Your task to perform on an android device: Show me popular videos on Youtube Image 0: 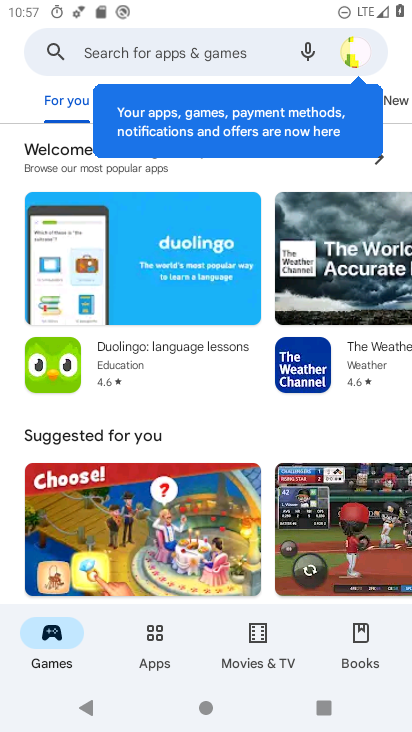
Step 0: press back button
Your task to perform on an android device: Show me popular videos on Youtube Image 1: 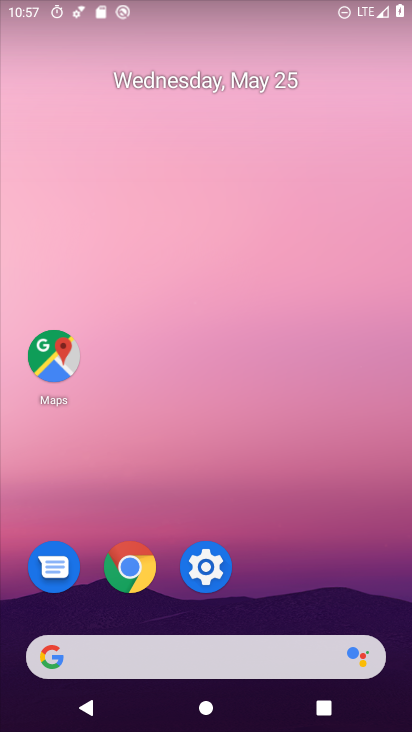
Step 1: drag from (278, 651) to (196, 15)
Your task to perform on an android device: Show me popular videos on Youtube Image 2: 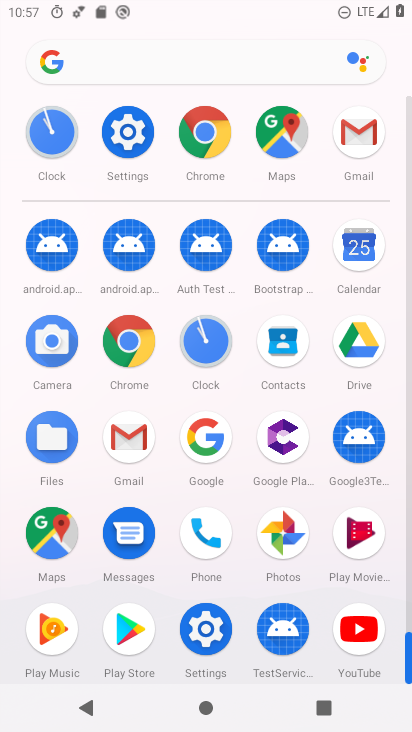
Step 2: drag from (290, 552) to (215, 147)
Your task to perform on an android device: Show me popular videos on Youtube Image 3: 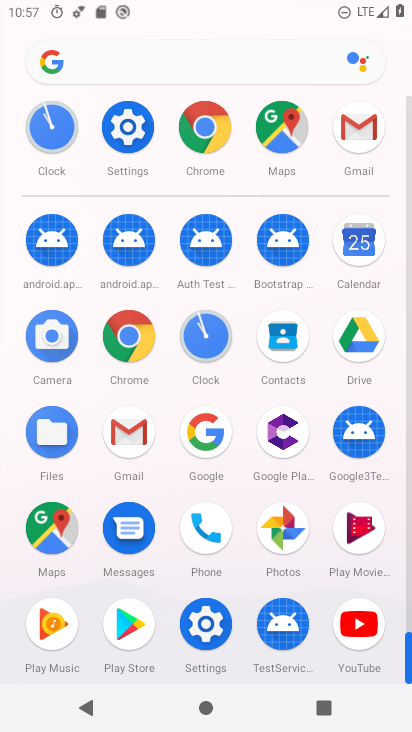
Step 3: click (350, 615)
Your task to perform on an android device: Show me popular videos on Youtube Image 4: 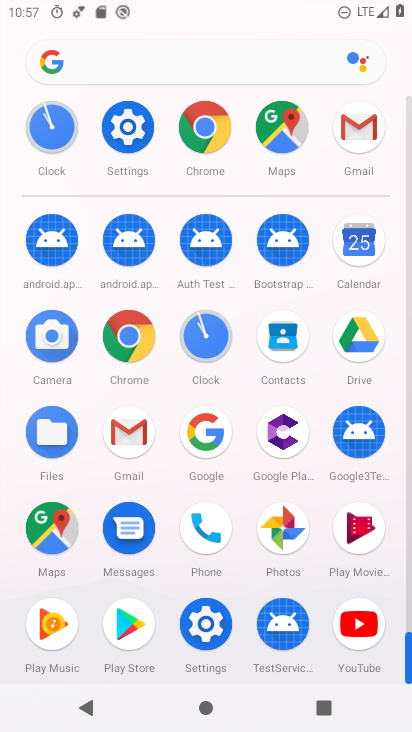
Step 4: click (350, 615)
Your task to perform on an android device: Show me popular videos on Youtube Image 5: 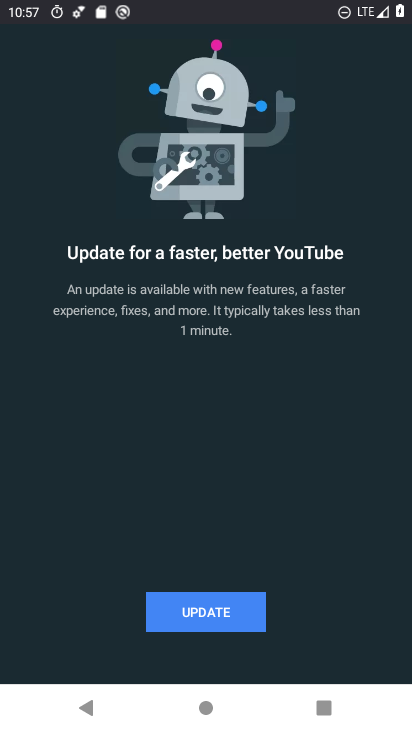
Step 5: click (207, 608)
Your task to perform on an android device: Show me popular videos on Youtube Image 6: 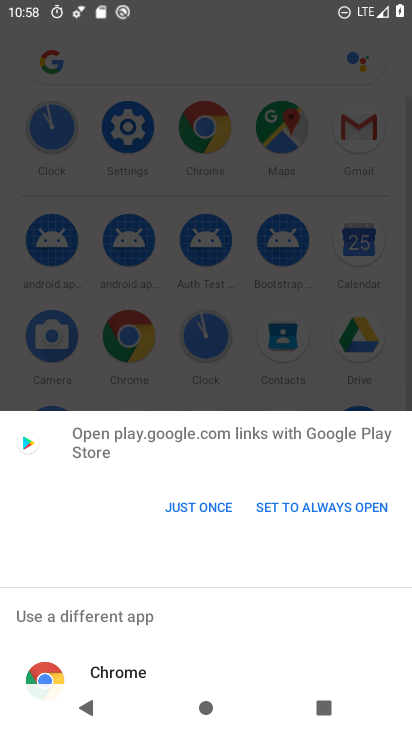
Step 6: drag from (111, 527) to (67, 235)
Your task to perform on an android device: Show me popular videos on Youtube Image 7: 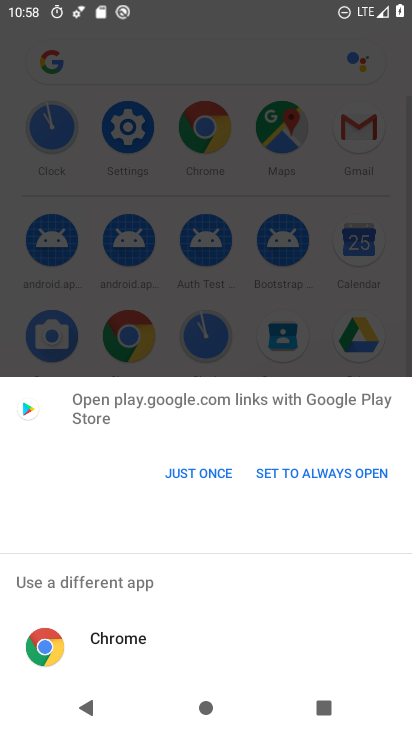
Step 7: drag from (151, 543) to (156, 140)
Your task to perform on an android device: Show me popular videos on Youtube Image 8: 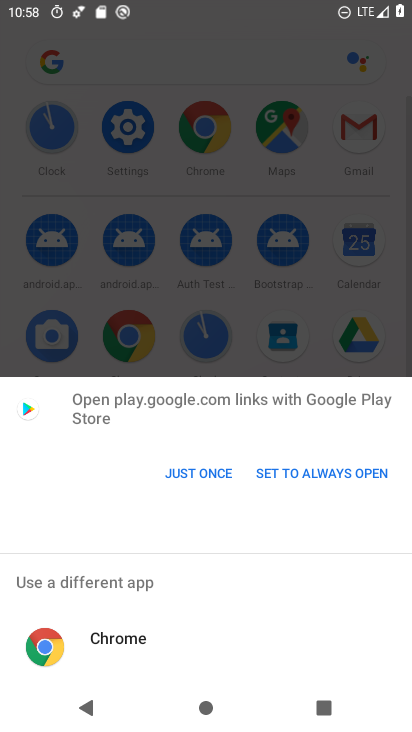
Step 8: drag from (234, 585) to (235, 113)
Your task to perform on an android device: Show me popular videos on Youtube Image 9: 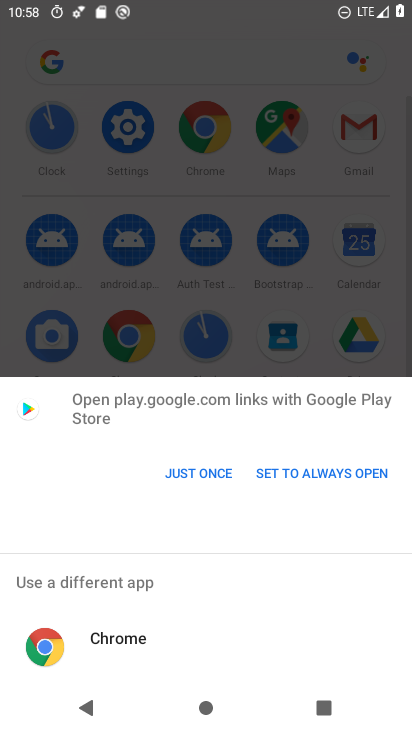
Step 9: drag from (230, 500) to (190, 70)
Your task to perform on an android device: Show me popular videos on Youtube Image 10: 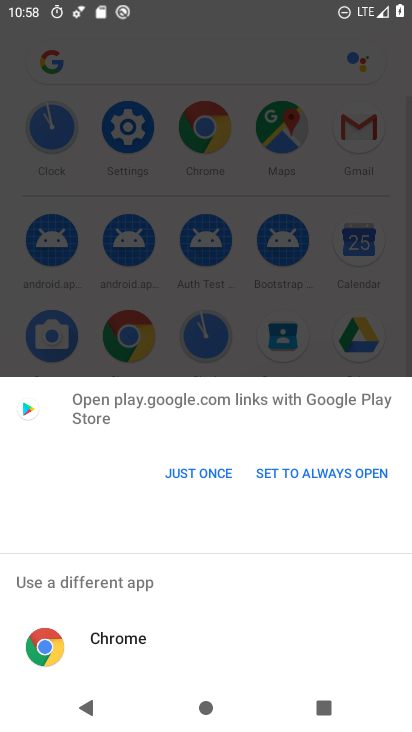
Step 10: drag from (217, 384) to (241, 131)
Your task to perform on an android device: Show me popular videos on Youtube Image 11: 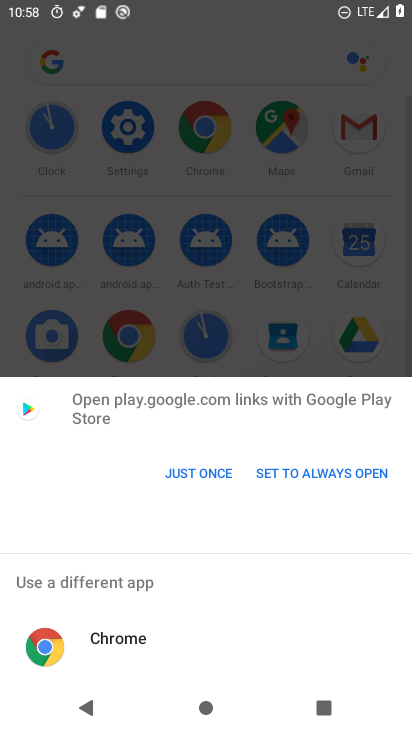
Step 11: drag from (207, 608) to (408, 174)
Your task to perform on an android device: Show me popular videos on Youtube Image 12: 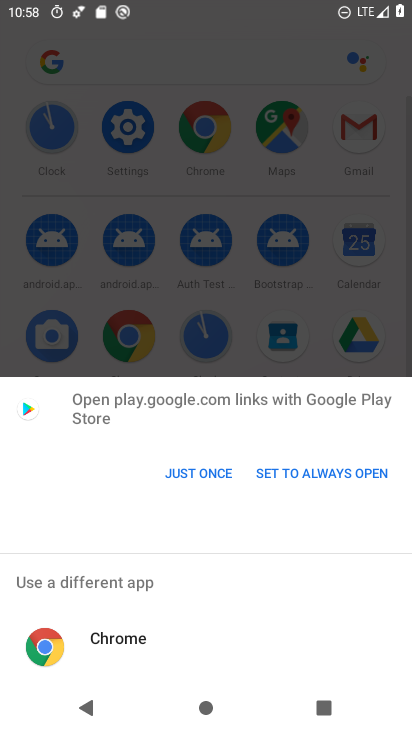
Step 12: press back button
Your task to perform on an android device: Show me popular videos on Youtube Image 13: 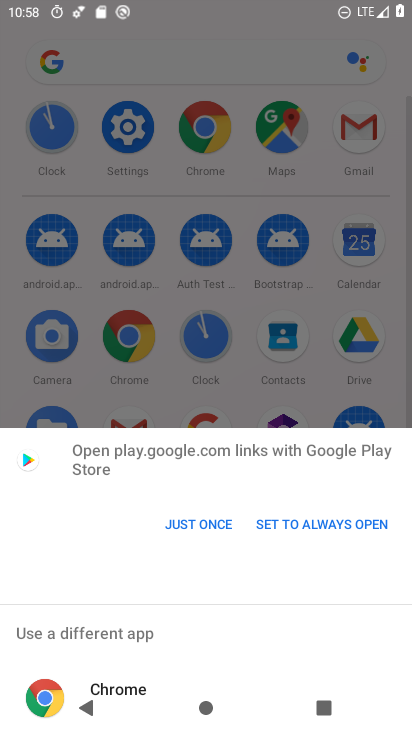
Step 13: press back button
Your task to perform on an android device: Show me popular videos on Youtube Image 14: 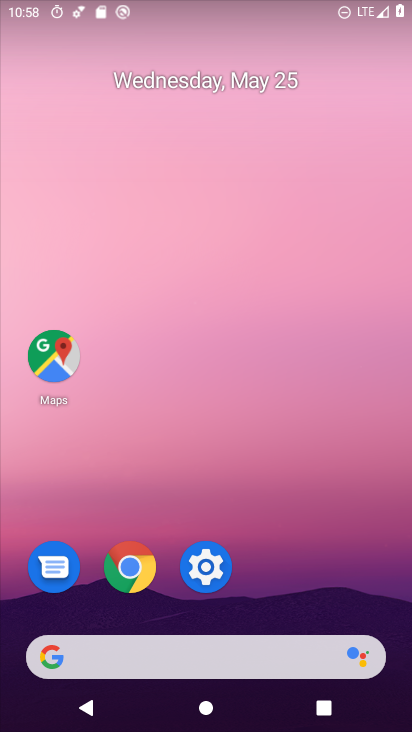
Step 14: click (214, 117)
Your task to perform on an android device: Show me popular videos on Youtube Image 15: 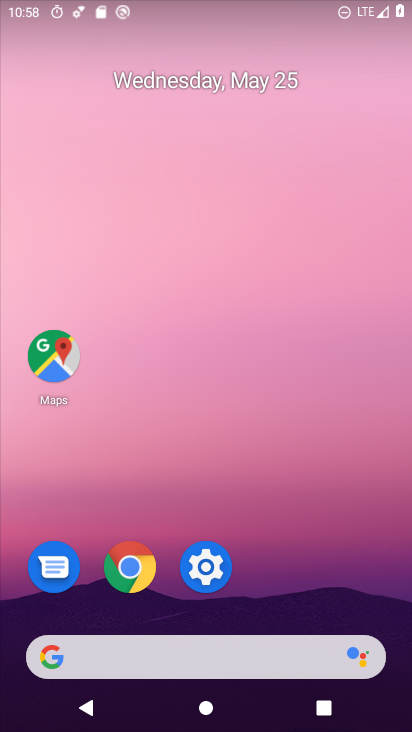
Step 15: drag from (249, 547) to (136, 31)
Your task to perform on an android device: Show me popular videos on Youtube Image 16: 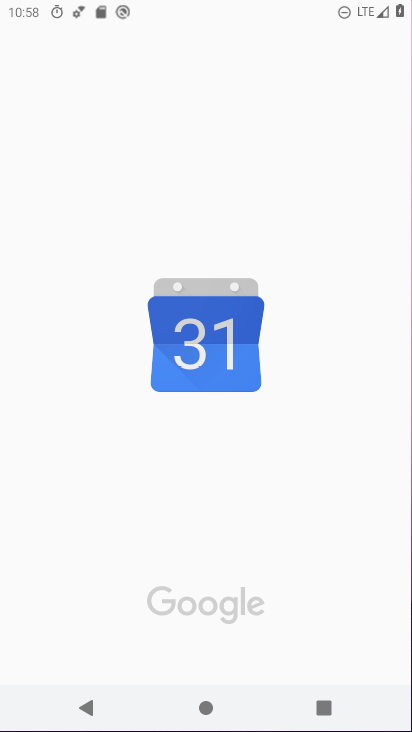
Step 16: drag from (237, 514) to (100, 27)
Your task to perform on an android device: Show me popular videos on Youtube Image 17: 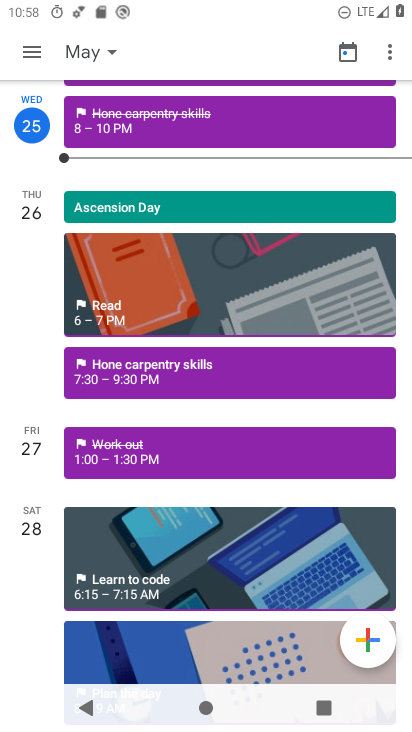
Step 17: drag from (195, 493) to (127, 39)
Your task to perform on an android device: Show me popular videos on Youtube Image 18: 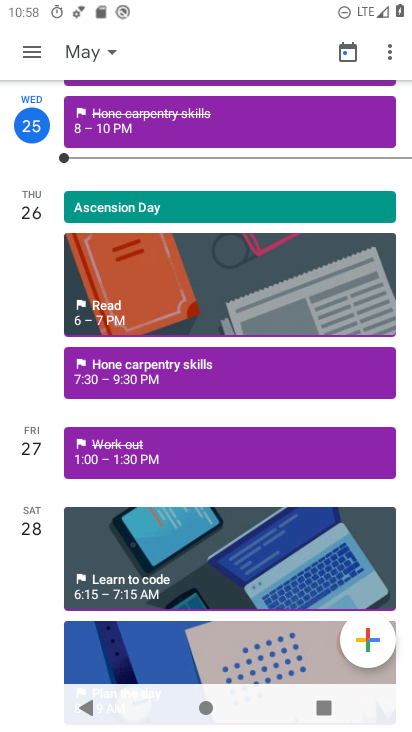
Step 18: drag from (279, 636) to (120, 16)
Your task to perform on an android device: Show me popular videos on Youtube Image 19: 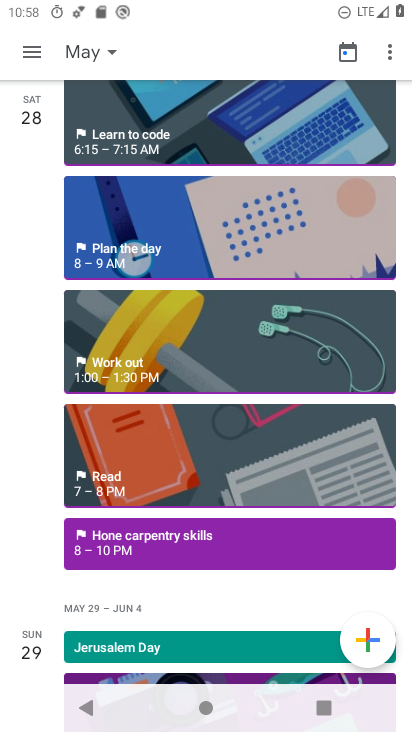
Step 19: press back button
Your task to perform on an android device: Show me popular videos on Youtube Image 20: 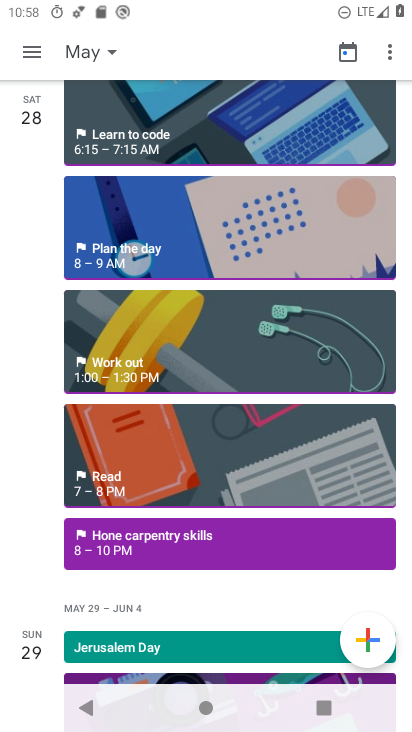
Step 20: press back button
Your task to perform on an android device: Show me popular videos on Youtube Image 21: 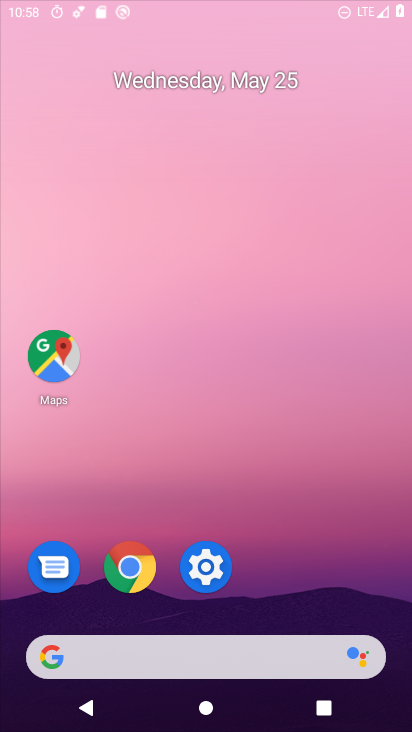
Step 21: press back button
Your task to perform on an android device: Show me popular videos on Youtube Image 22: 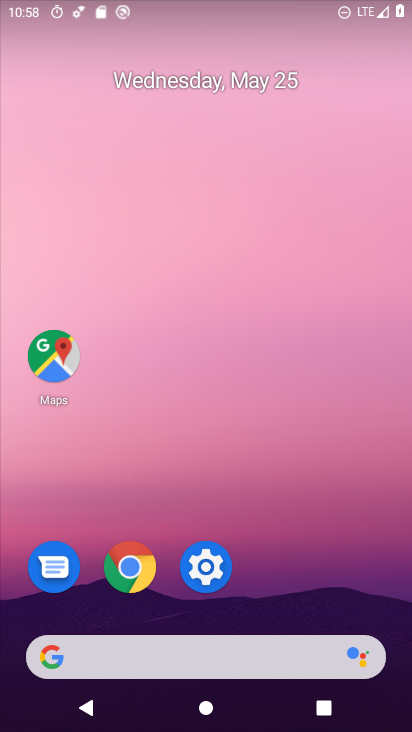
Step 22: drag from (216, 586) to (102, 104)
Your task to perform on an android device: Show me popular videos on Youtube Image 23: 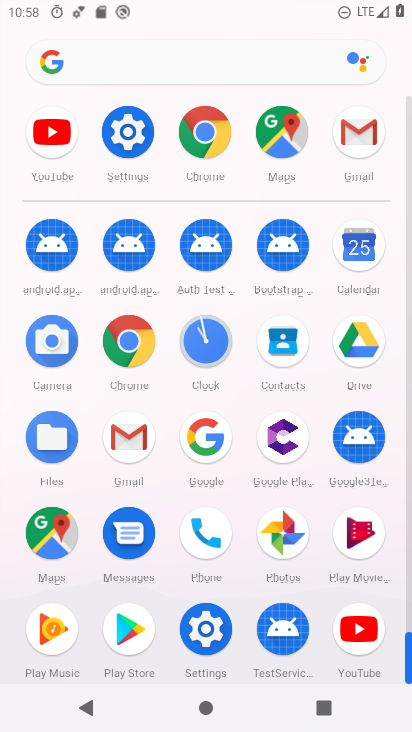
Step 23: click (354, 620)
Your task to perform on an android device: Show me popular videos on Youtube Image 24: 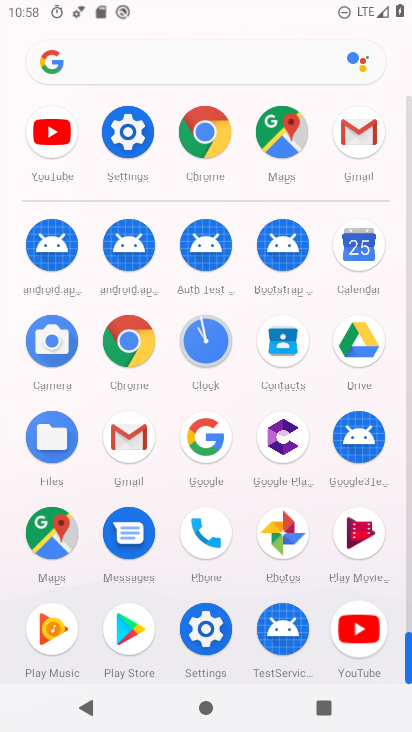
Step 24: click (355, 620)
Your task to perform on an android device: Show me popular videos on Youtube Image 25: 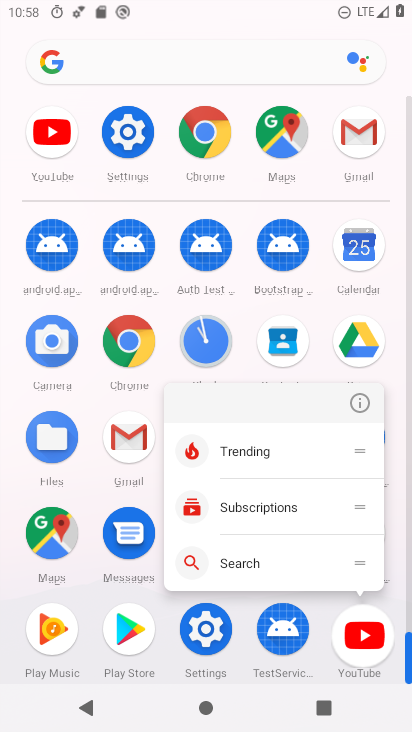
Step 25: click (358, 629)
Your task to perform on an android device: Show me popular videos on Youtube Image 26: 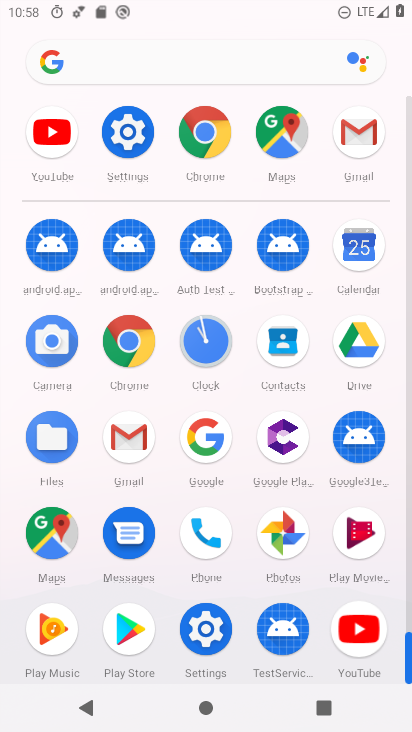
Step 26: click (358, 629)
Your task to perform on an android device: Show me popular videos on Youtube Image 27: 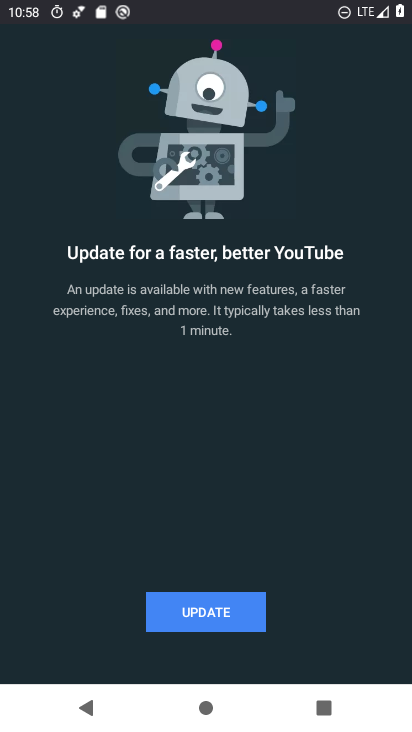
Step 27: click (358, 629)
Your task to perform on an android device: Show me popular videos on Youtube Image 28: 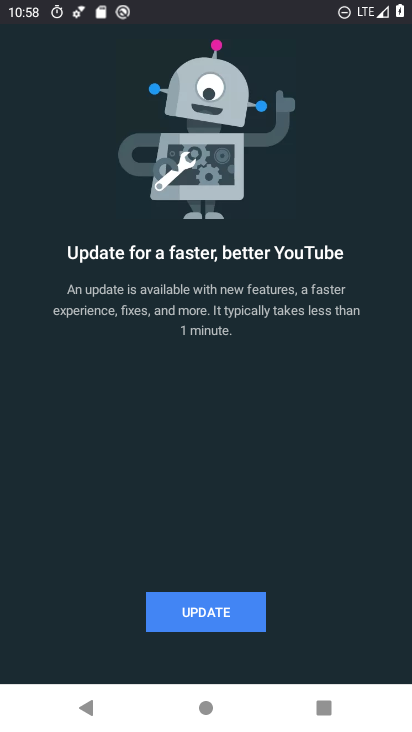
Step 28: click (215, 614)
Your task to perform on an android device: Show me popular videos on Youtube Image 29: 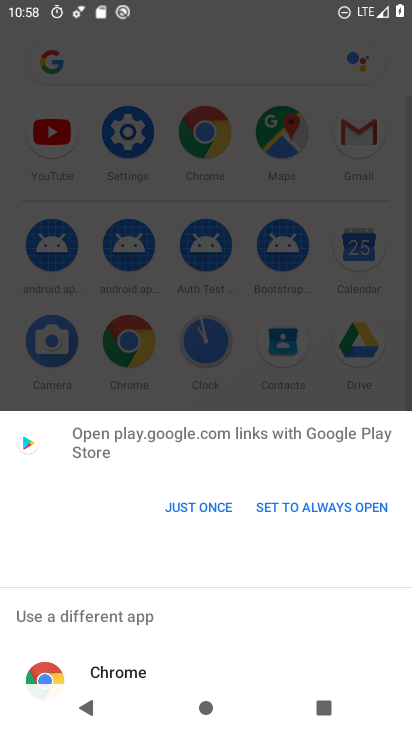
Step 29: drag from (141, 607) to (61, 309)
Your task to perform on an android device: Show me popular videos on Youtube Image 30: 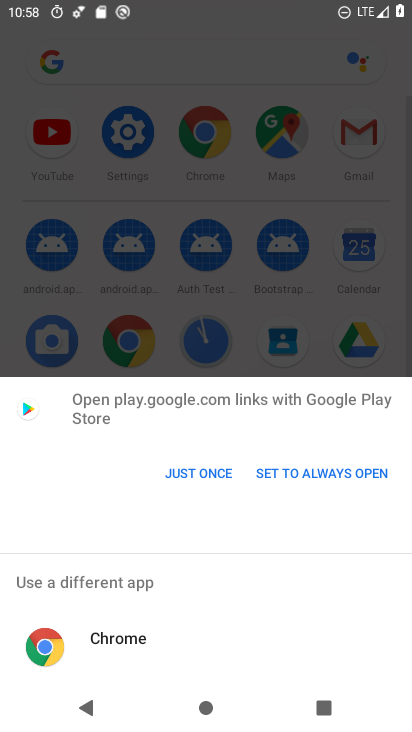
Step 30: drag from (207, 596) to (173, 380)
Your task to perform on an android device: Show me popular videos on Youtube Image 31: 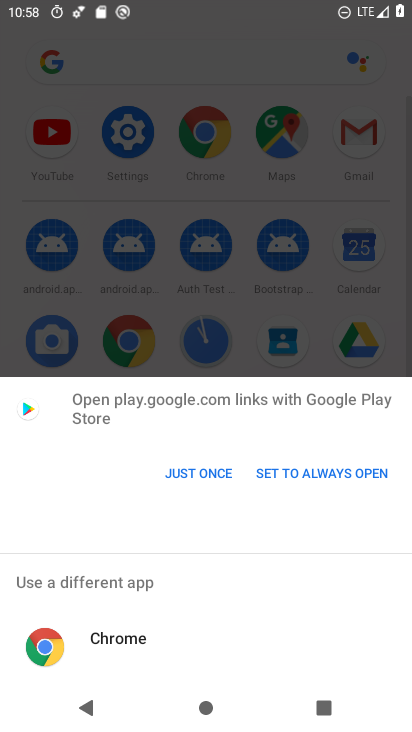
Step 31: click (118, 636)
Your task to perform on an android device: Show me popular videos on Youtube Image 32: 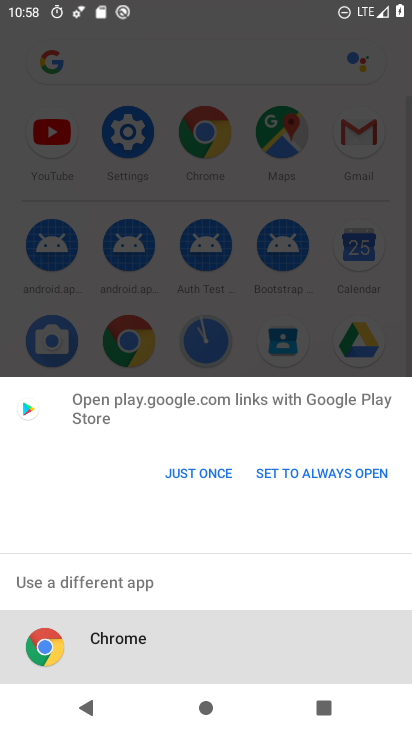
Step 32: click (118, 636)
Your task to perform on an android device: Show me popular videos on Youtube Image 33: 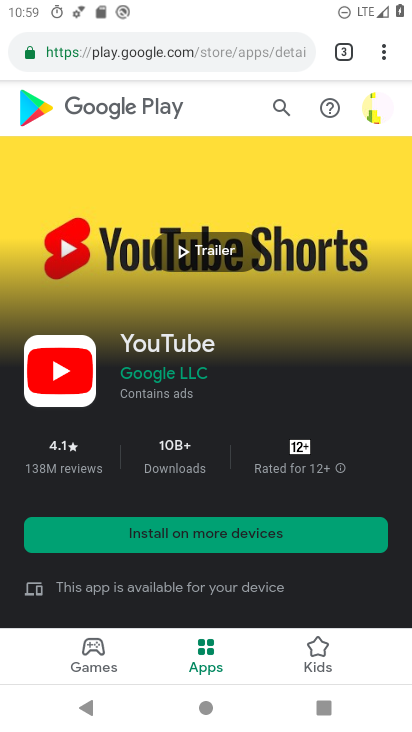
Step 33: click (107, 45)
Your task to perform on an android device: Show me popular videos on Youtube Image 34: 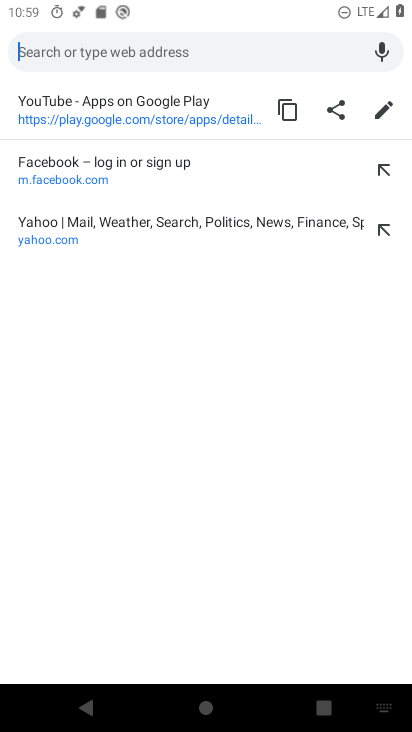
Step 34: type "popular vedios"
Your task to perform on an android device: Show me popular videos on Youtube Image 35: 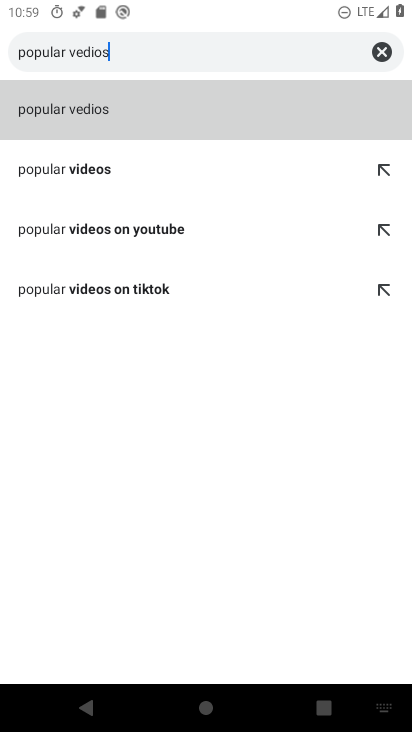
Step 35: click (83, 168)
Your task to perform on an android device: Show me popular videos on Youtube Image 36: 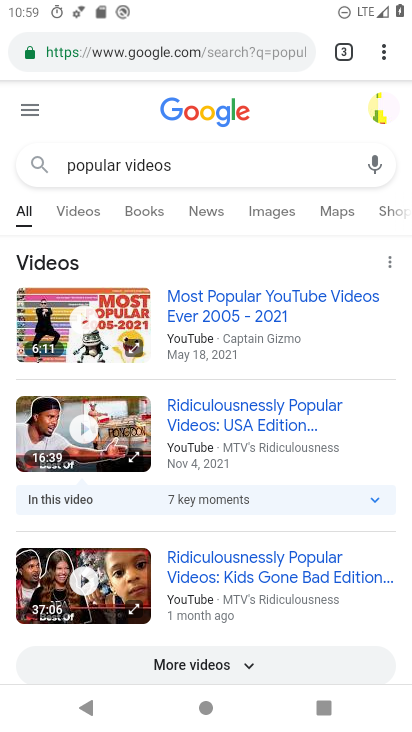
Step 36: task complete